Your task to perform on an android device: turn on data saver in the chrome app Image 0: 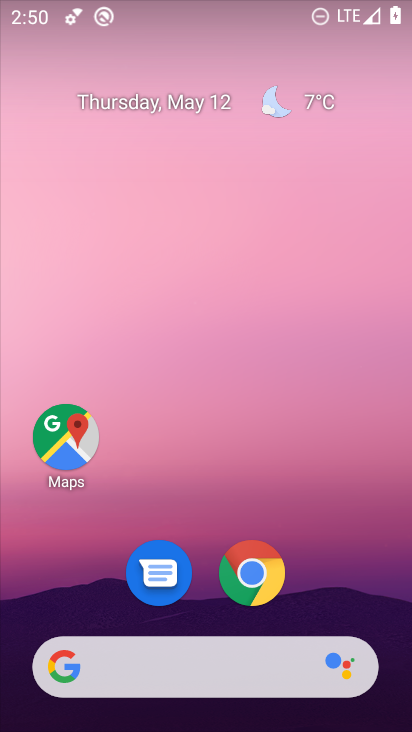
Step 0: click (211, 2)
Your task to perform on an android device: turn on data saver in the chrome app Image 1: 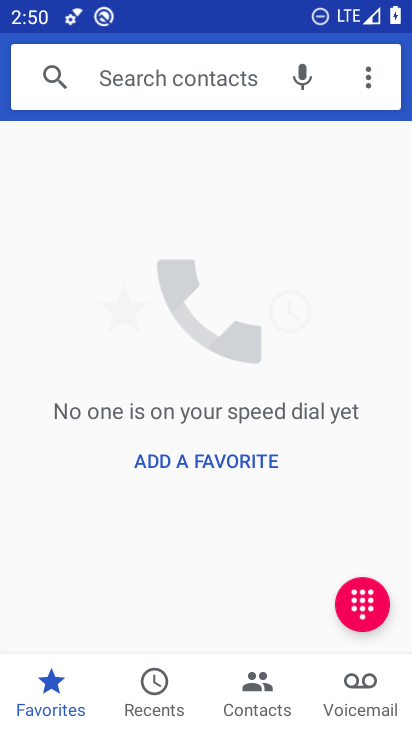
Step 1: press back button
Your task to perform on an android device: turn on data saver in the chrome app Image 2: 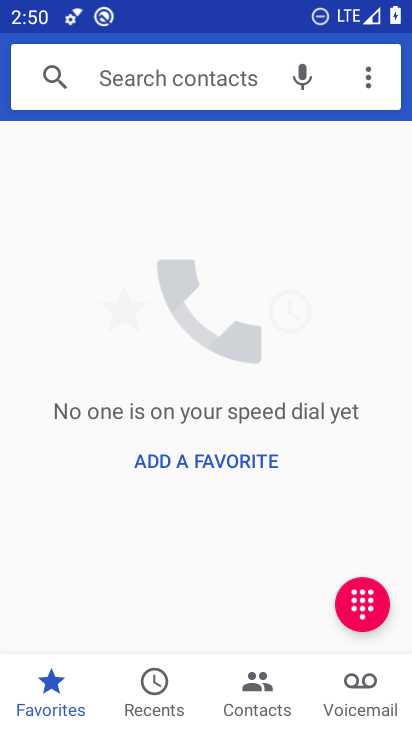
Step 2: press back button
Your task to perform on an android device: turn on data saver in the chrome app Image 3: 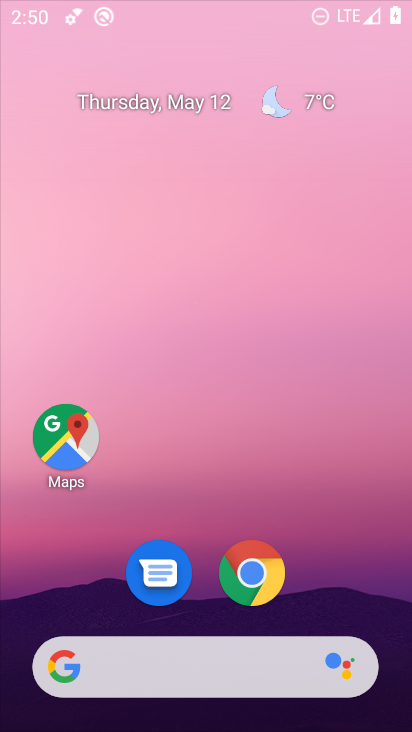
Step 3: press back button
Your task to perform on an android device: turn on data saver in the chrome app Image 4: 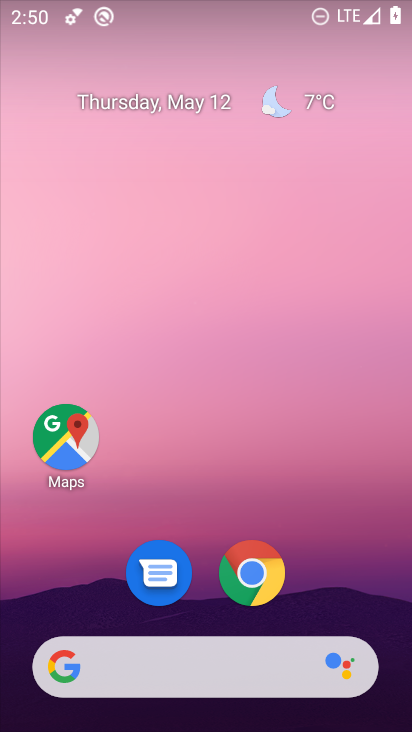
Step 4: drag from (337, 562) to (121, 109)
Your task to perform on an android device: turn on data saver in the chrome app Image 5: 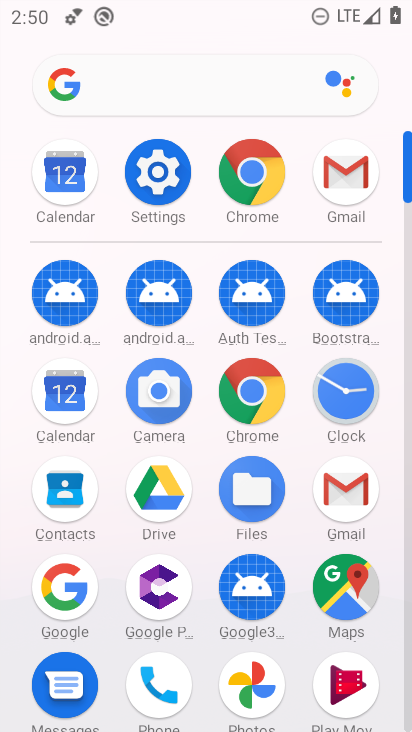
Step 5: click (236, 183)
Your task to perform on an android device: turn on data saver in the chrome app Image 6: 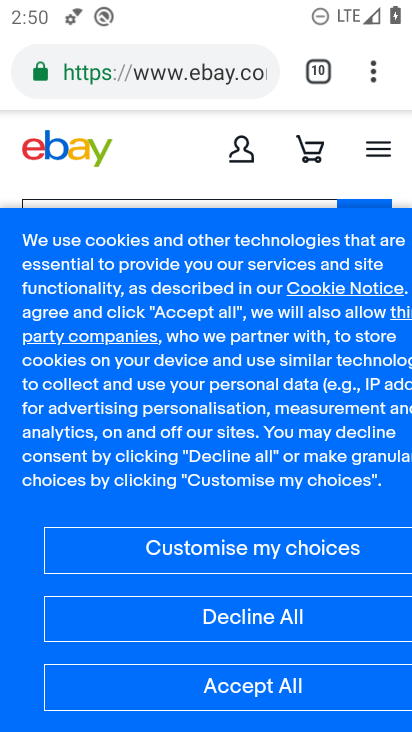
Step 6: click (368, 70)
Your task to perform on an android device: turn on data saver in the chrome app Image 7: 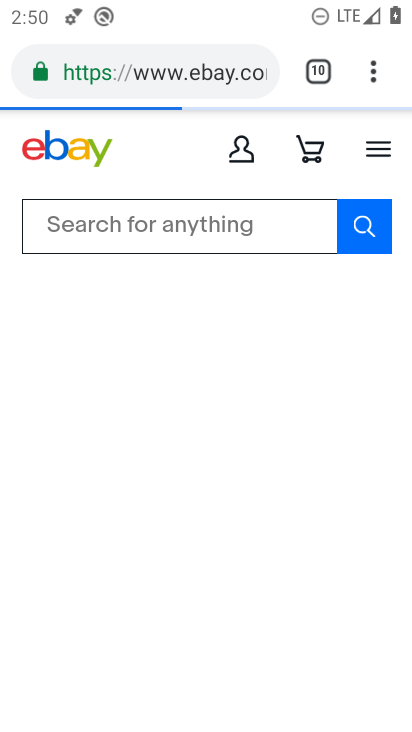
Step 7: drag from (371, 70) to (112, 575)
Your task to perform on an android device: turn on data saver in the chrome app Image 8: 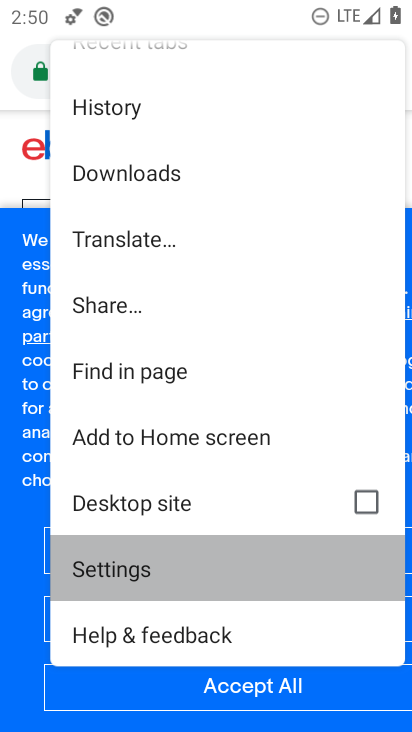
Step 8: click (111, 576)
Your task to perform on an android device: turn on data saver in the chrome app Image 9: 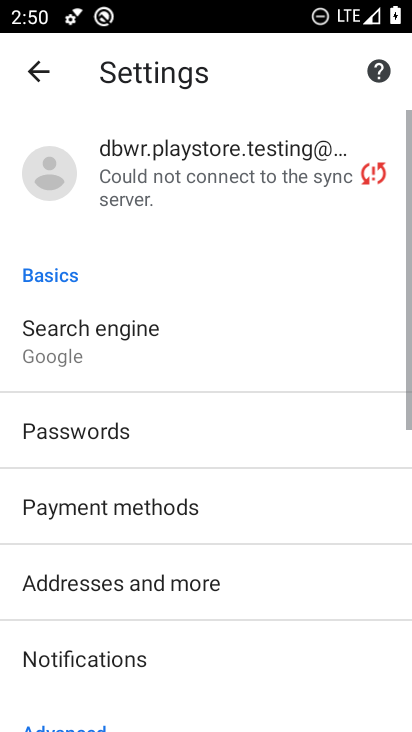
Step 9: drag from (168, 562) to (118, 133)
Your task to perform on an android device: turn on data saver in the chrome app Image 10: 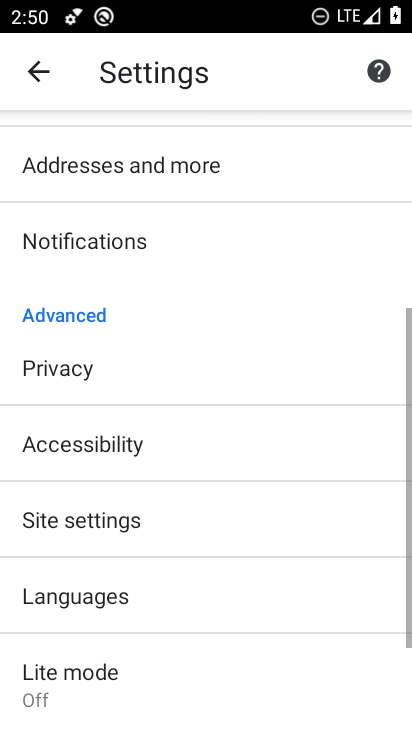
Step 10: drag from (123, 523) to (88, 148)
Your task to perform on an android device: turn on data saver in the chrome app Image 11: 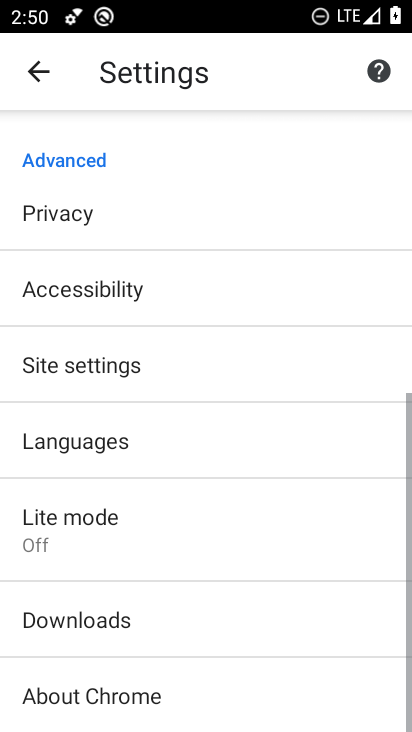
Step 11: click (71, 514)
Your task to perform on an android device: turn on data saver in the chrome app Image 12: 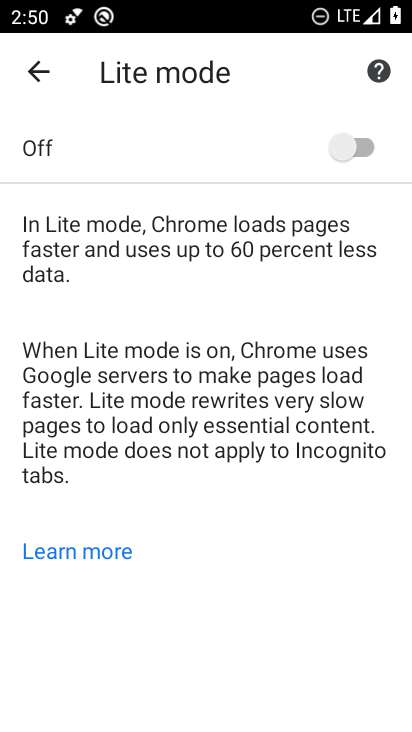
Step 12: click (341, 148)
Your task to perform on an android device: turn on data saver in the chrome app Image 13: 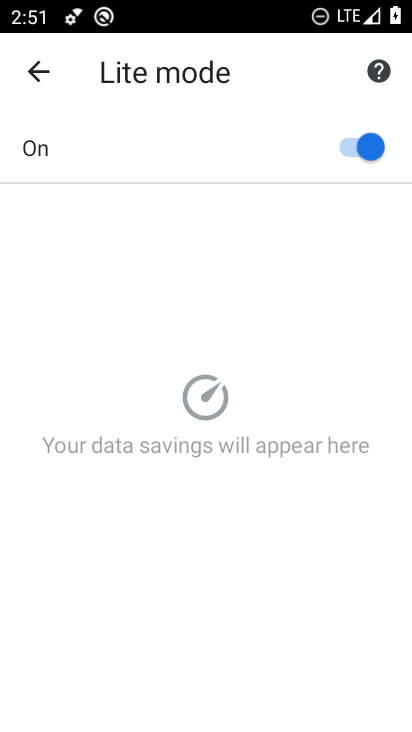
Step 13: task complete